Your task to perform on an android device: allow cookies in the chrome app Image 0: 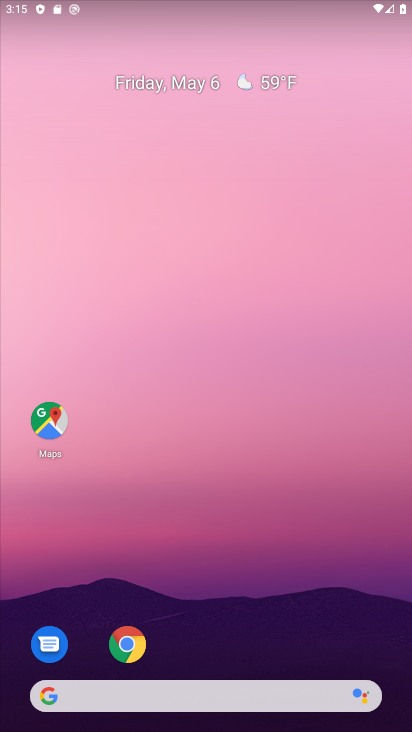
Step 0: click (127, 643)
Your task to perform on an android device: allow cookies in the chrome app Image 1: 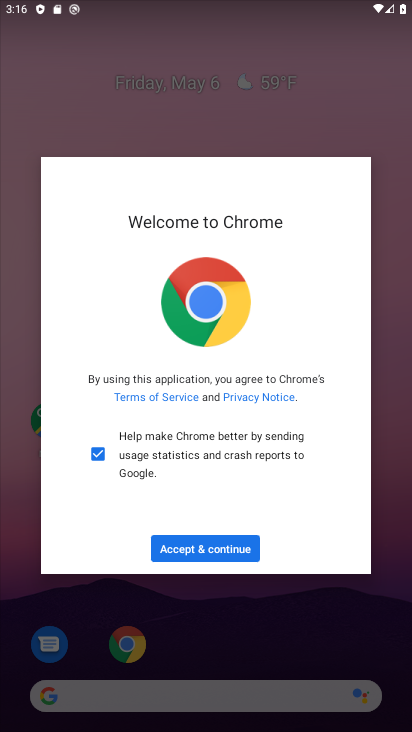
Step 1: click (209, 554)
Your task to perform on an android device: allow cookies in the chrome app Image 2: 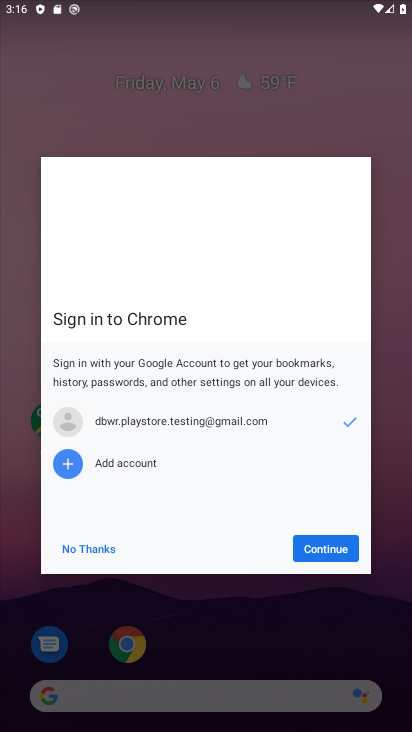
Step 2: click (320, 550)
Your task to perform on an android device: allow cookies in the chrome app Image 3: 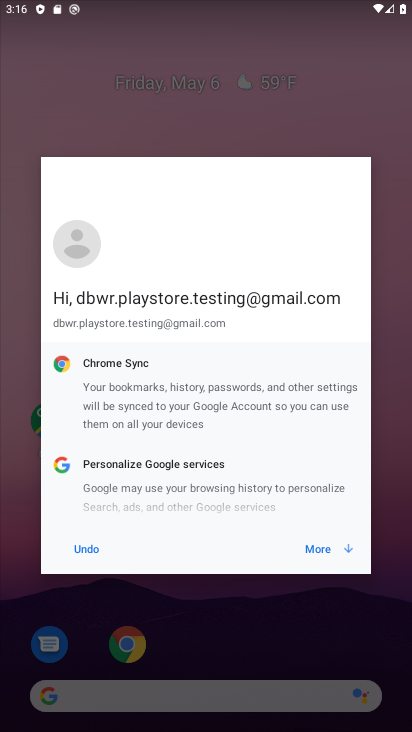
Step 3: click (320, 550)
Your task to perform on an android device: allow cookies in the chrome app Image 4: 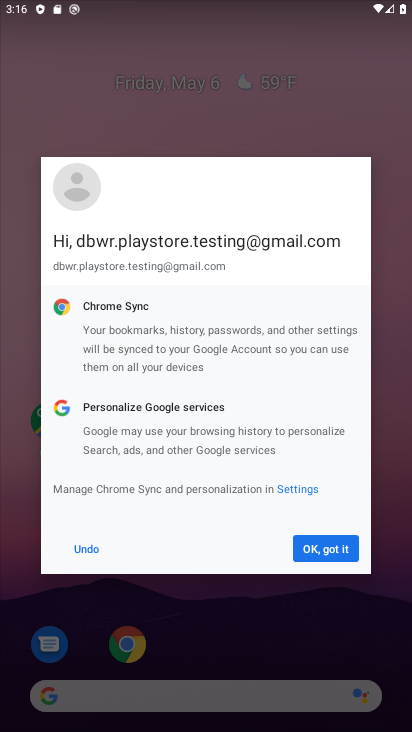
Step 4: click (320, 550)
Your task to perform on an android device: allow cookies in the chrome app Image 5: 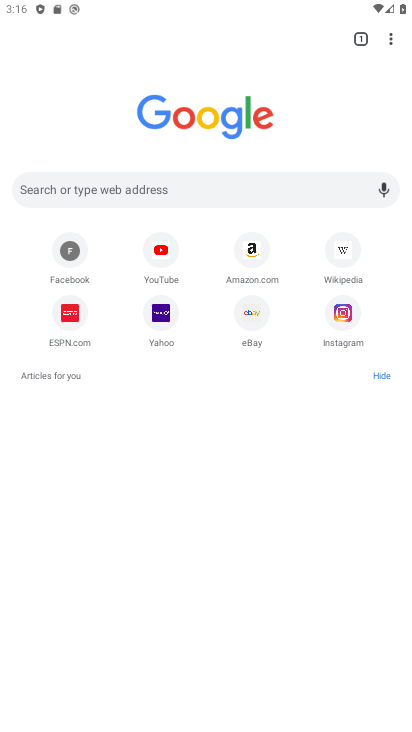
Step 5: click (391, 39)
Your task to perform on an android device: allow cookies in the chrome app Image 6: 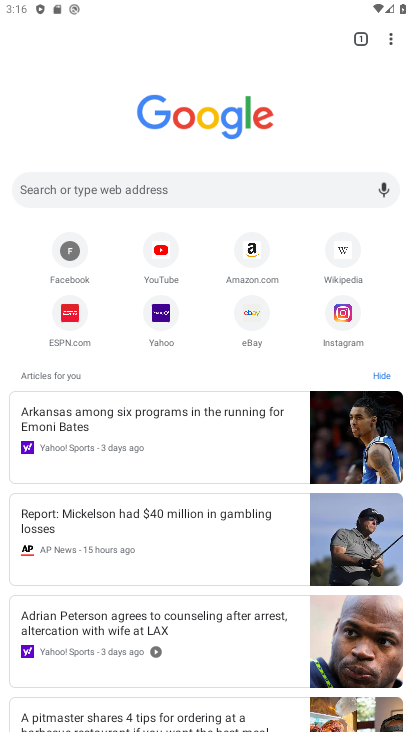
Step 6: click (394, 42)
Your task to perform on an android device: allow cookies in the chrome app Image 7: 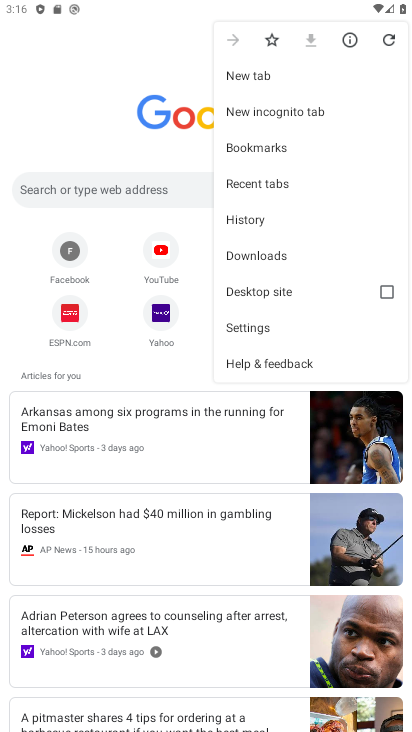
Step 7: click (258, 325)
Your task to perform on an android device: allow cookies in the chrome app Image 8: 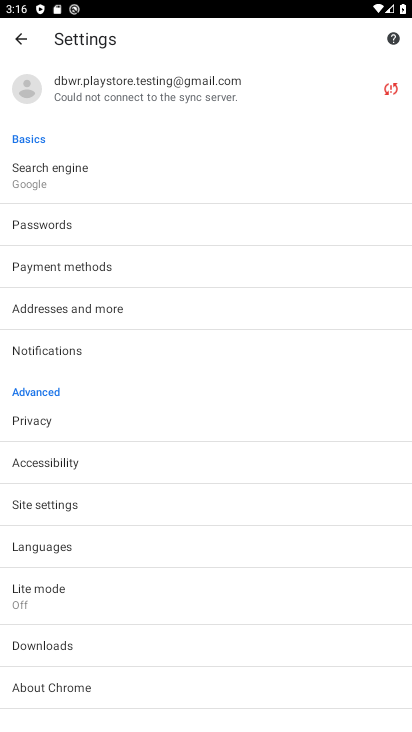
Step 8: click (50, 509)
Your task to perform on an android device: allow cookies in the chrome app Image 9: 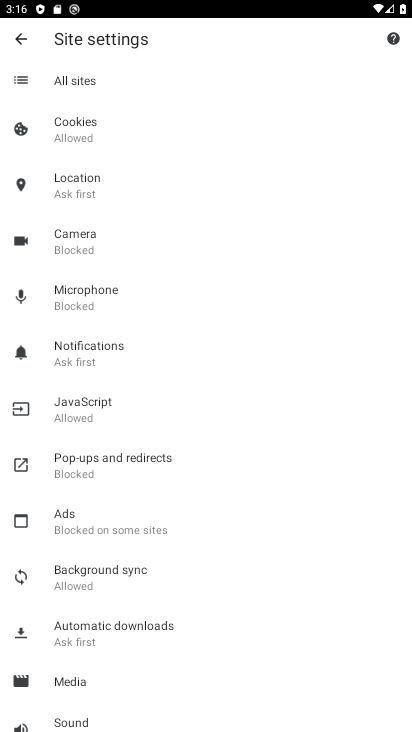
Step 9: click (77, 118)
Your task to perform on an android device: allow cookies in the chrome app Image 10: 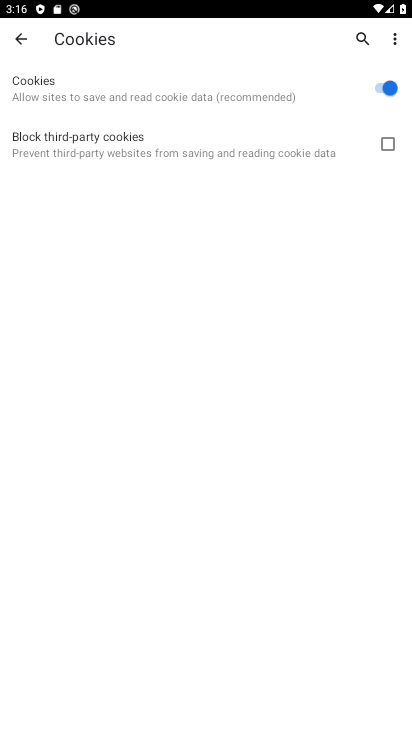
Step 10: task complete